Your task to perform on an android device: Open battery settings Image 0: 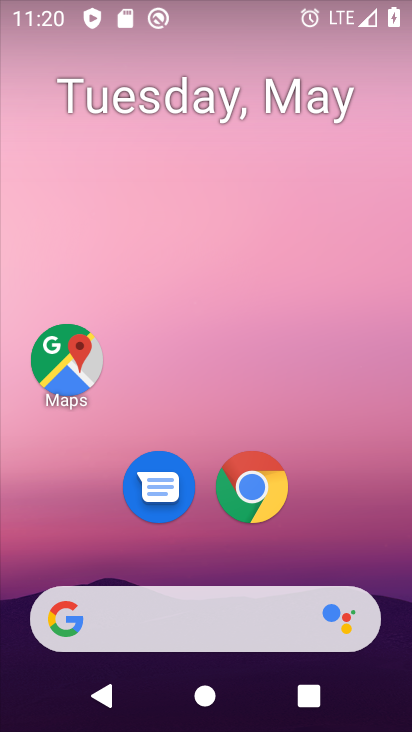
Step 0: drag from (200, 575) to (238, 243)
Your task to perform on an android device: Open battery settings Image 1: 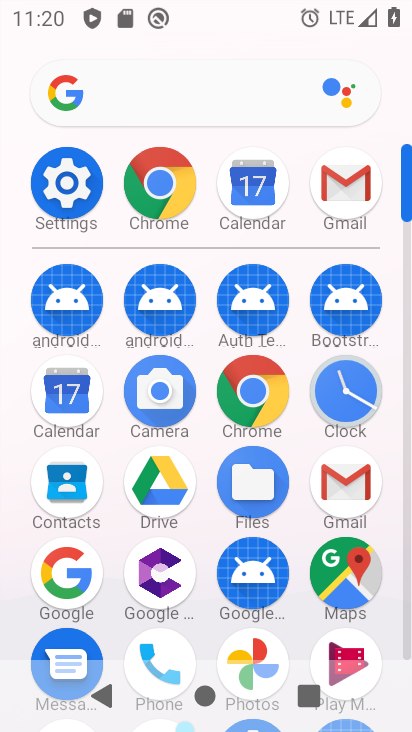
Step 1: click (75, 179)
Your task to perform on an android device: Open battery settings Image 2: 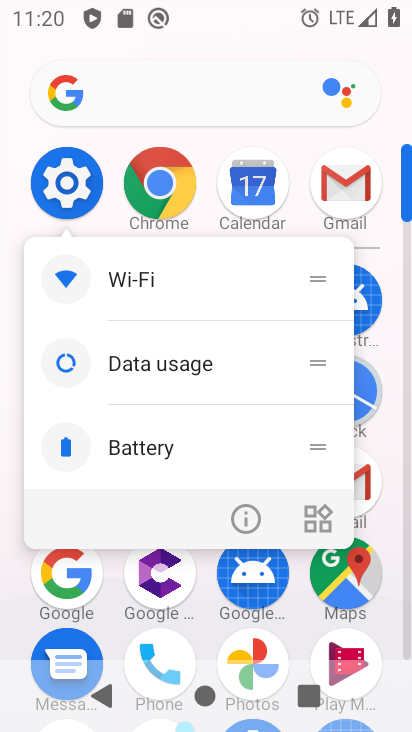
Step 2: click (232, 558)
Your task to perform on an android device: Open battery settings Image 3: 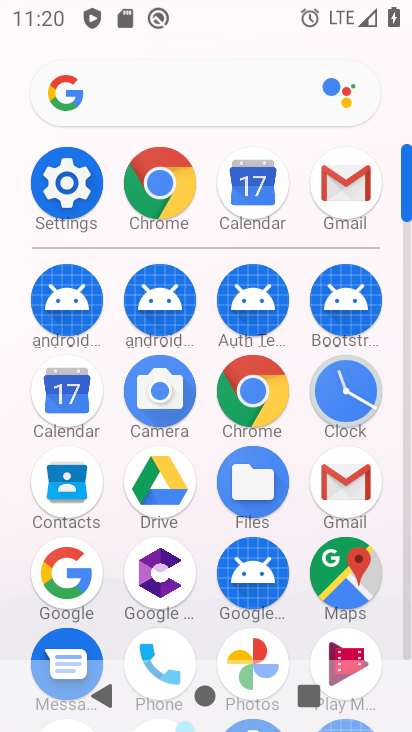
Step 3: click (91, 203)
Your task to perform on an android device: Open battery settings Image 4: 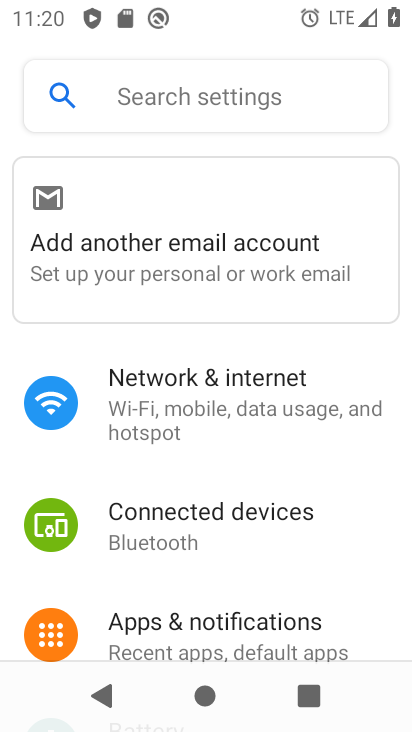
Step 4: drag from (222, 582) to (328, 216)
Your task to perform on an android device: Open battery settings Image 5: 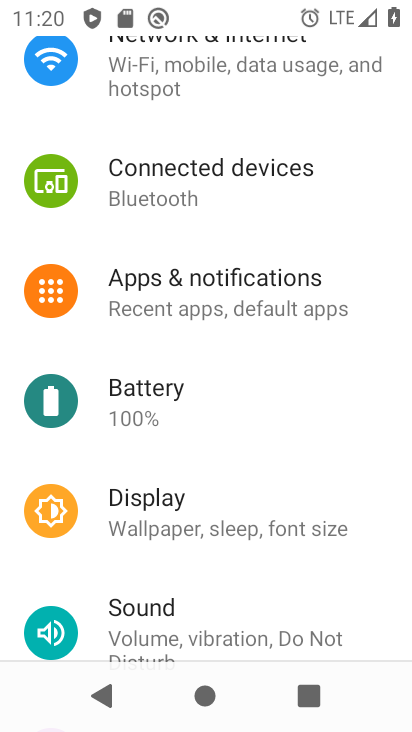
Step 5: drag from (254, 241) to (271, 112)
Your task to perform on an android device: Open battery settings Image 6: 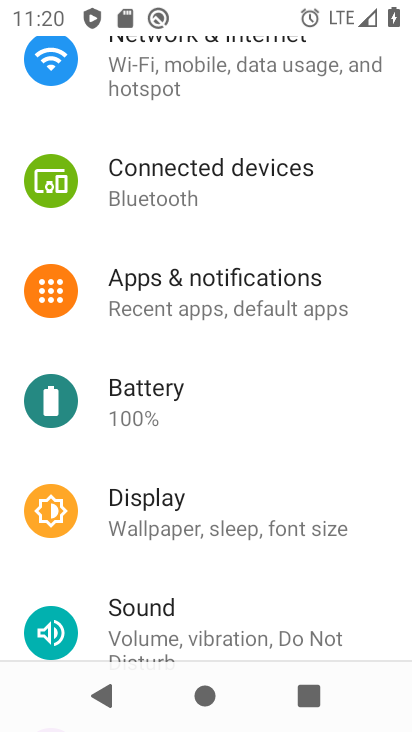
Step 6: drag from (251, 472) to (255, 278)
Your task to perform on an android device: Open battery settings Image 7: 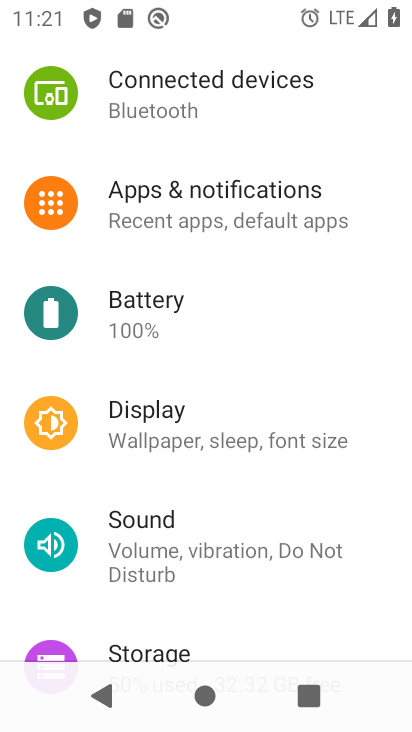
Step 7: click (175, 305)
Your task to perform on an android device: Open battery settings Image 8: 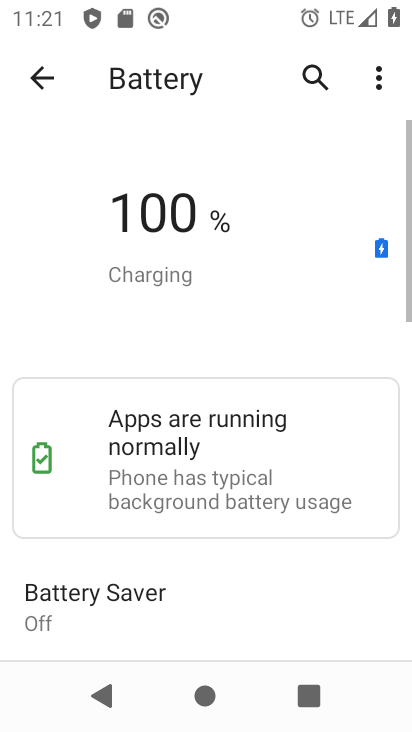
Step 8: drag from (306, 619) to (291, 262)
Your task to perform on an android device: Open battery settings Image 9: 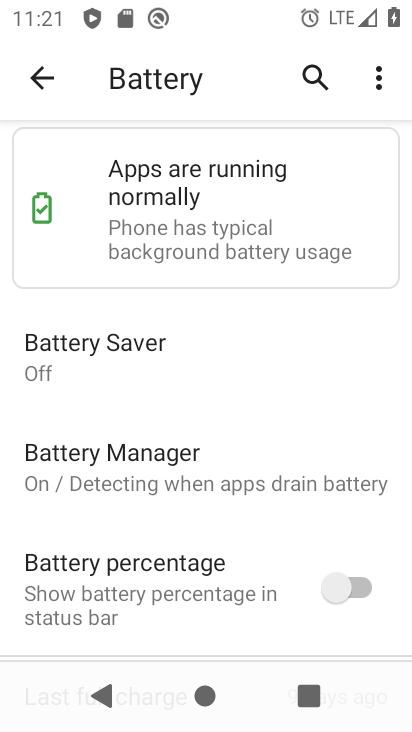
Step 9: drag from (284, 534) to (307, 238)
Your task to perform on an android device: Open battery settings Image 10: 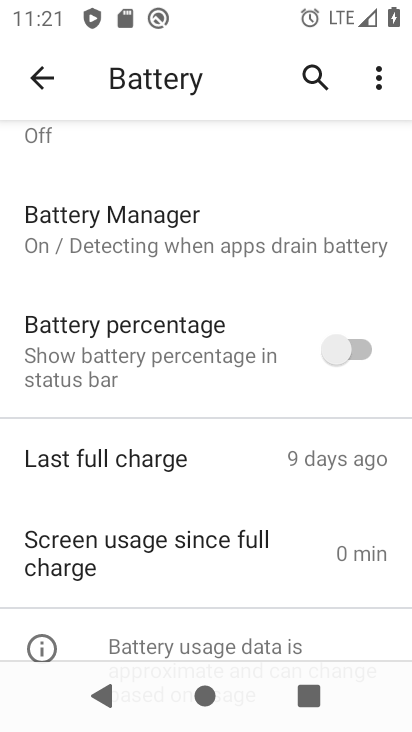
Step 10: drag from (198, 196) to (298, 542)
Your task to perform on an android device: Open battery settings Image 11: 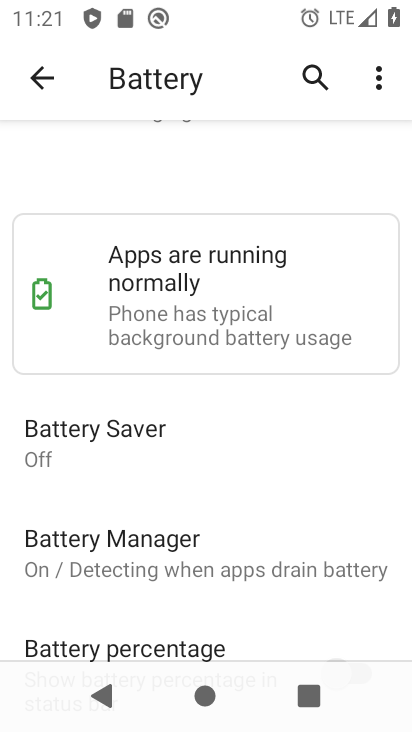
Step 11: drag from (269, 410) to (263, 683)
Your task to perform on an android device: Open battery settings Image 12: 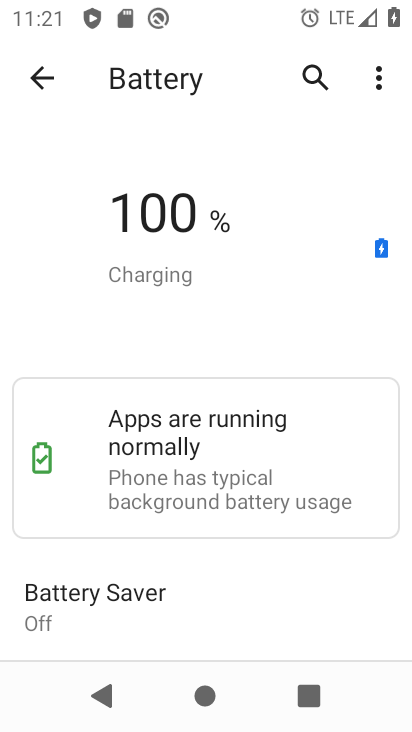
Step 12: drag from (260, 598) to (345, 268)
Your task to perform on an android device: Open battery settings Image 13: 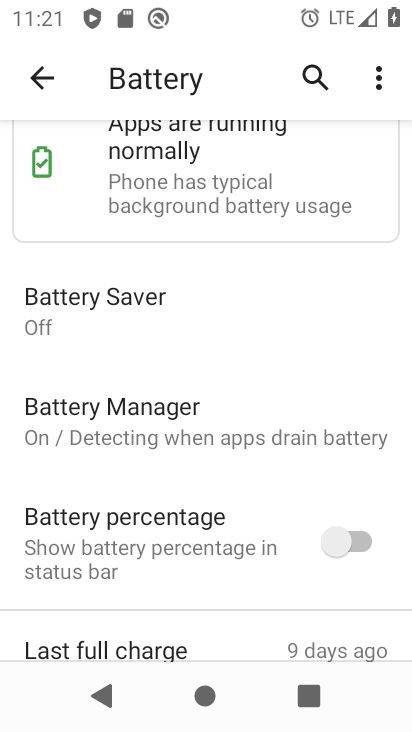
Step 13: drag from (247, 577) to (310, 351)
Your task to perform on an android device: Open battery settings Image 14: 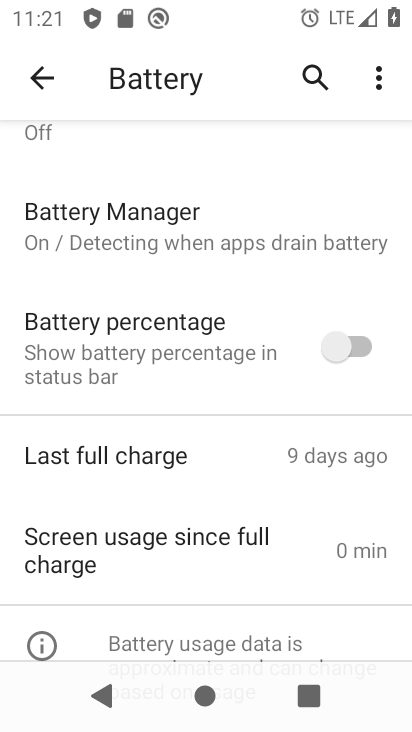
Step 14: drag from (212, 566) to (275, 248)
Your task to perform on an android device: Open battery settings Image 15: 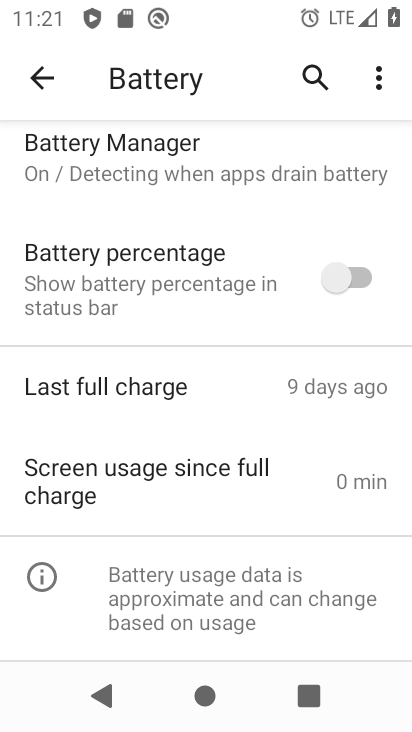
Step 15: drag from (194, 426) to (316, 704)
Your task to perform on an android device: Open battery settings Image 16: 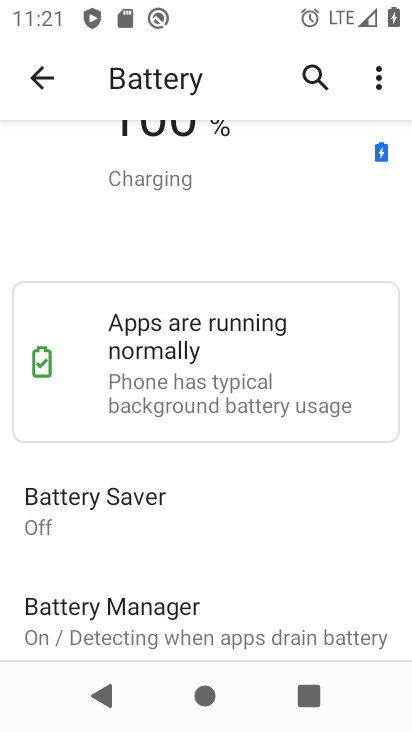
Step 16: click (390, 54)
Your task to perform on an android device: Open battery settings Image 17: 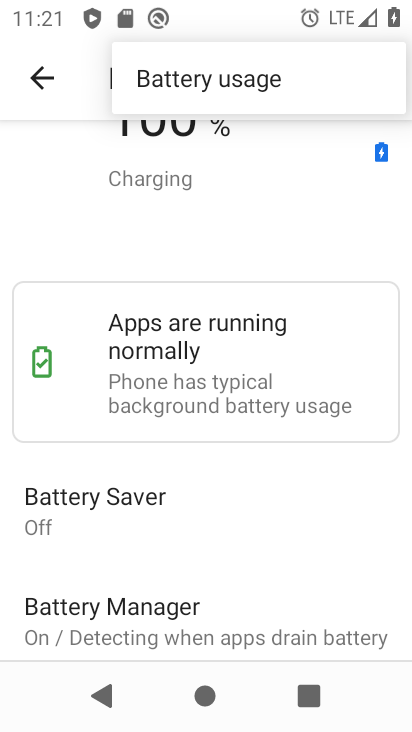
Step 17: task complete